Your task to perform on an android device: Go to Google Image 0: 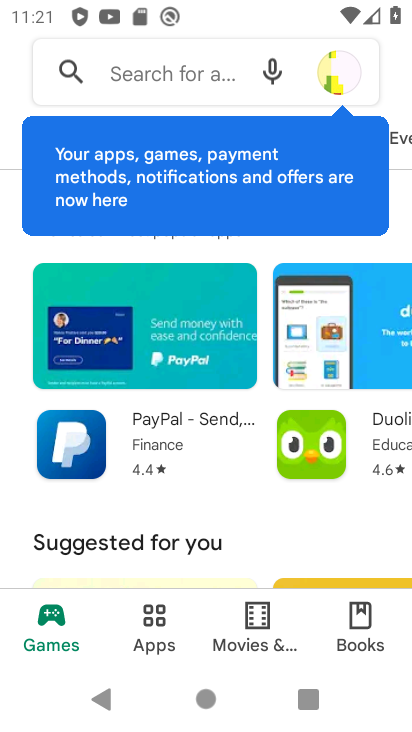
Step 0: press home button
Your task to perform on an android device: Go to Google Image 1: 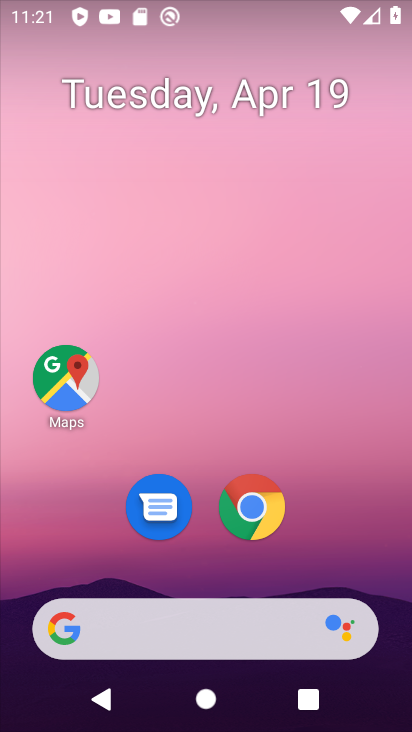
Step 1: drag from (336, 407) to (324, 188)
Your task to perform on an android device: Go to Google Image 2: 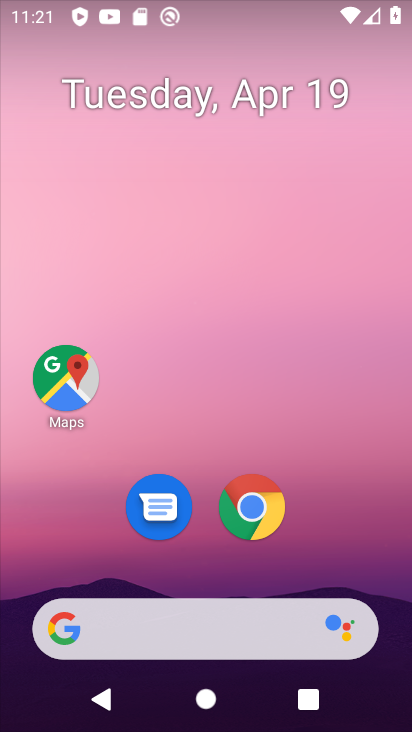
Step 2: drag from (371, 549) to (316, 109)
Your task to perform on an android device: Go to Google Image 3: 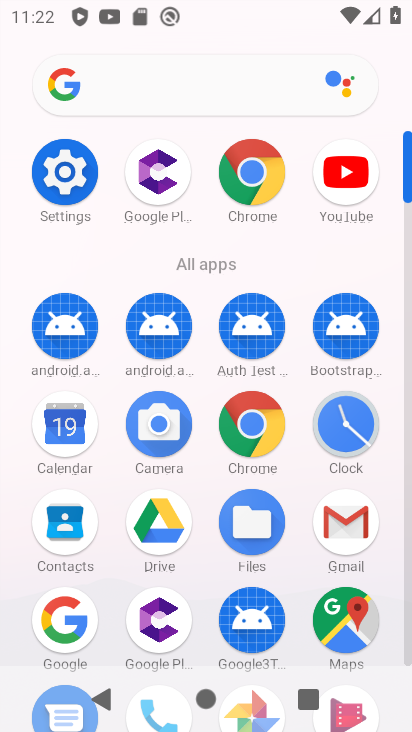
Step 3: click (51, 601)
Your task to perform on an android device: Go to Google Image 4: 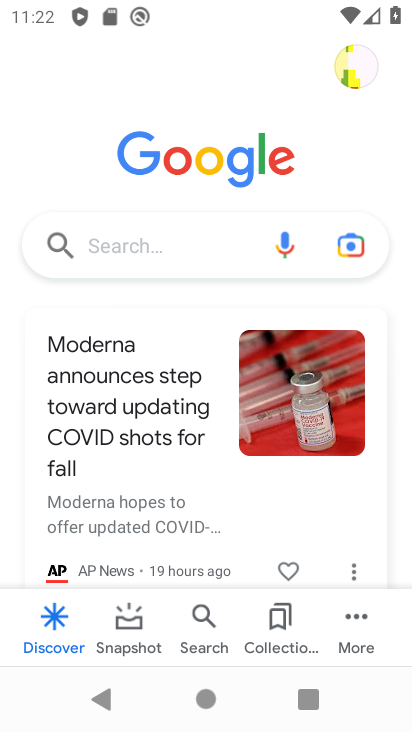
Step 4: task complete